Your task to perform on an android device: turn off location history Image 0: 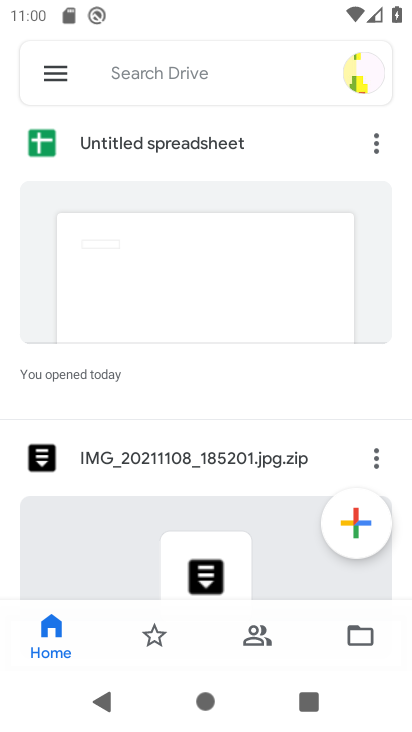
Step 0: press home button
Your task to perform on an android device: turn off location history Image 1: 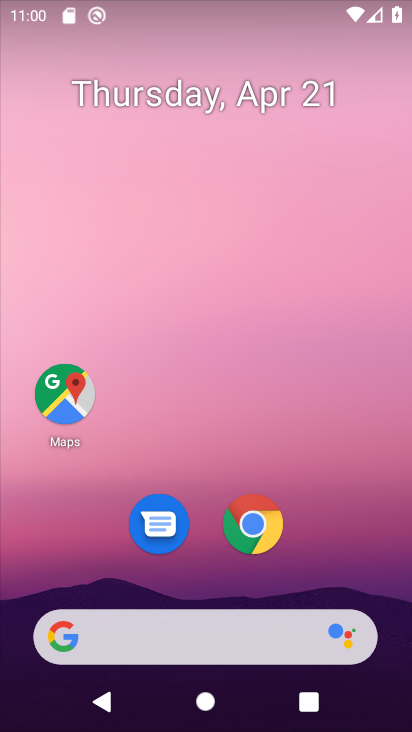
Step 1: drag from (320, 538) to (294, 99)
Your task to perform on an android device: turn off location history Image 2: 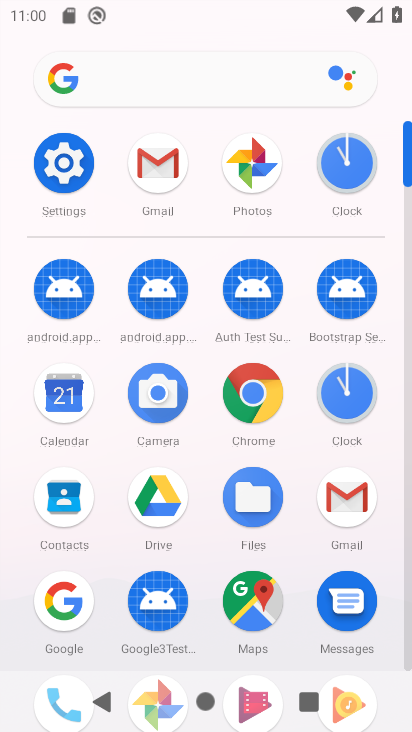
Step 2: click (73, 162)
Your task to perform on an android device: turn off location history Image 3: 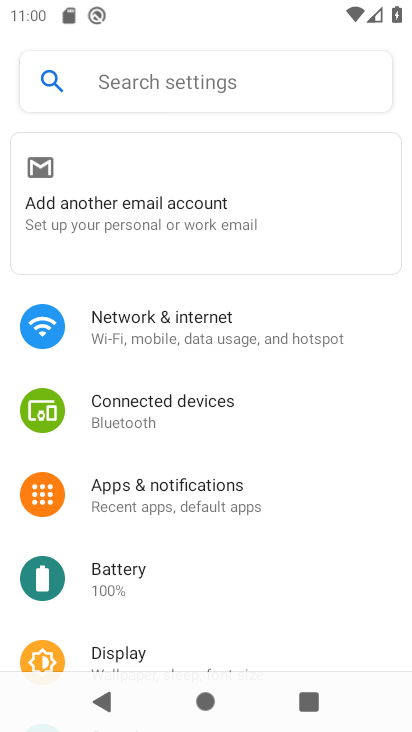
Step 3: drag from (228, 578) to (267, 5)
Your task to perform on an android device: turn off location history Image 4: 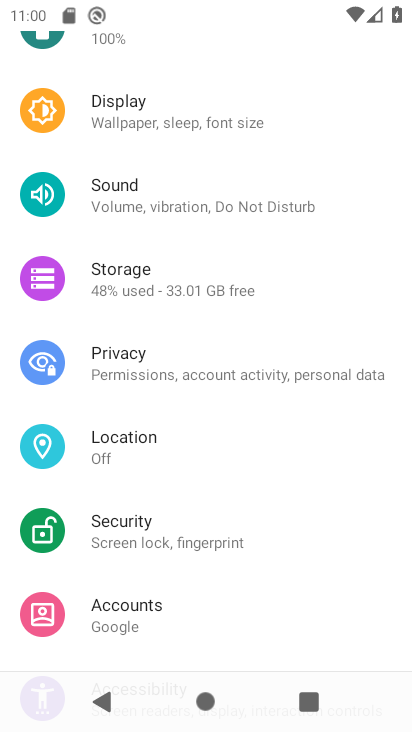
Step 4: click (187, 466)
Your task to perform on an android device: turn off location history Image 5: 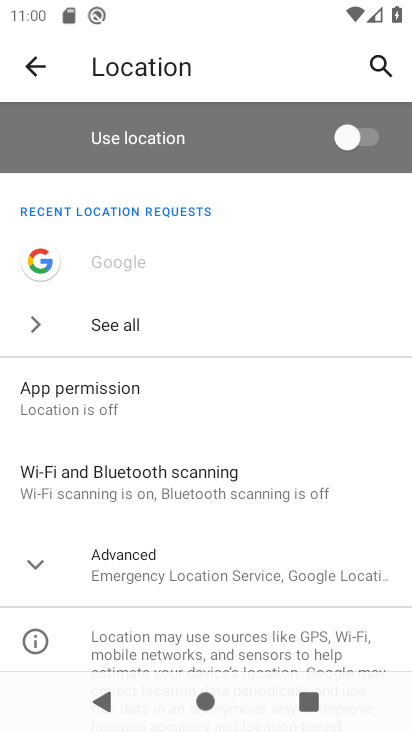
Step 5: click (32, 565)
Your task to perform on an android device: turn off location history Image 6: 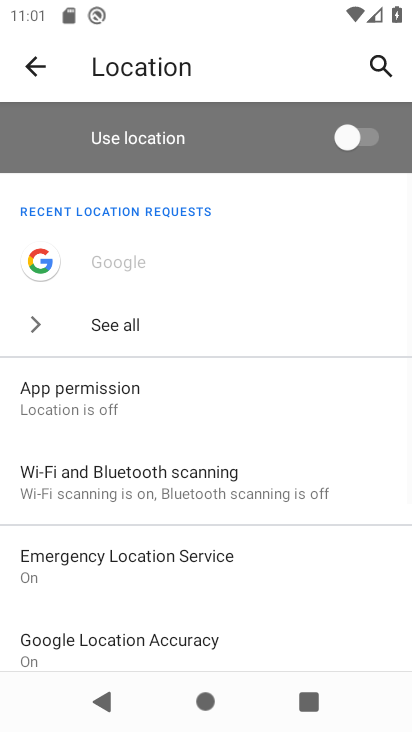
Step 6: drag from (252, 577) to (260, 240)
Your task to perform on an android device: turn off location history Image 7: 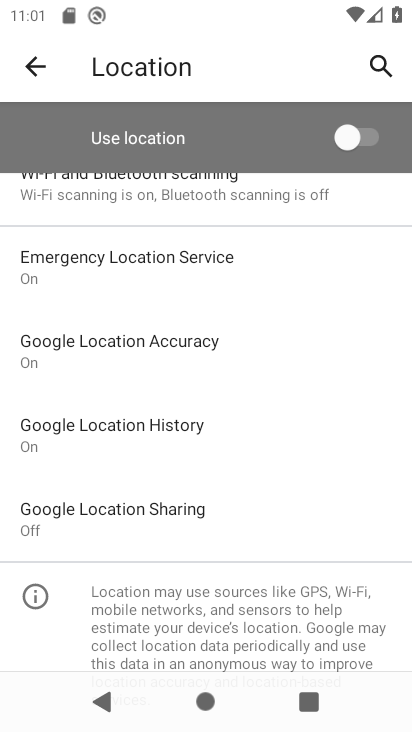
Step 7: click (140, 447)
Your task to perform on an android device: turn off location history Image 8: 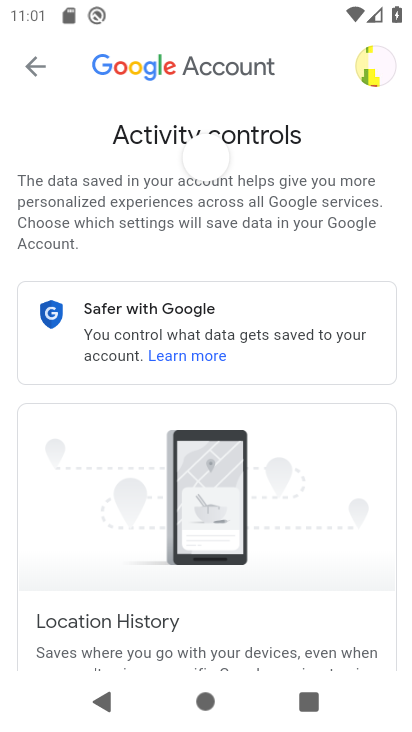
Step 8: task complete